Your task to perform on an android device: open a new tab in the chrome app Image 0: 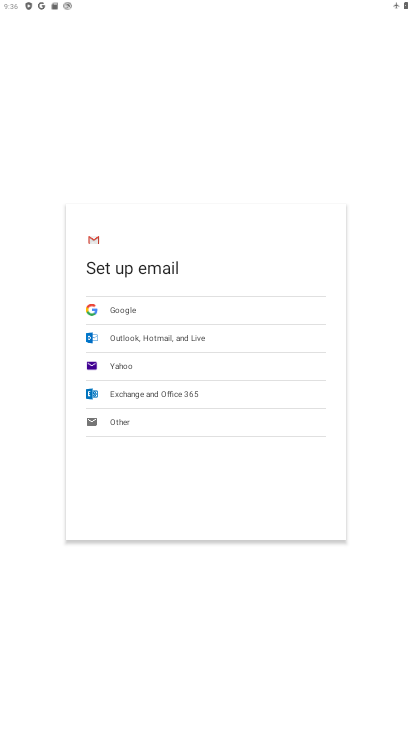
Step 0: press home button
Your task to perform on an android device: open a new tab in the chrome app Image 1: 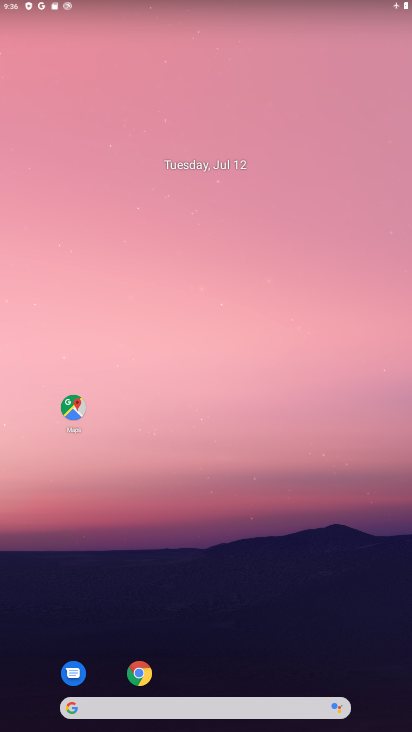
Step 1: click (143, 673)
Your task to perform on an android device: open a new tab in the chrome app Image 2: 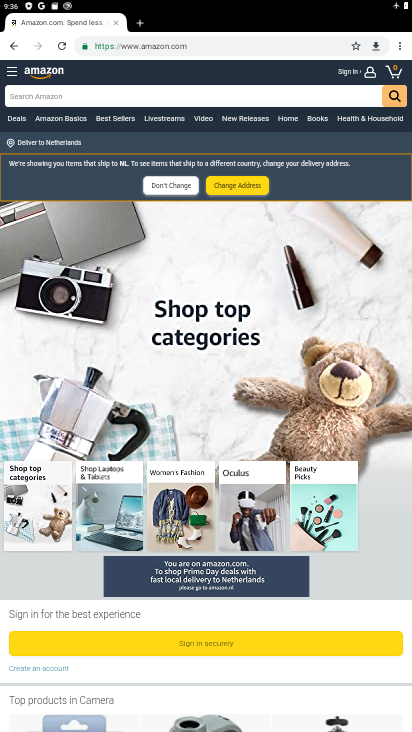
Step 2: click (400, 44)
Your task to perform on an android device: open a new tab in the chrome app Image 3: 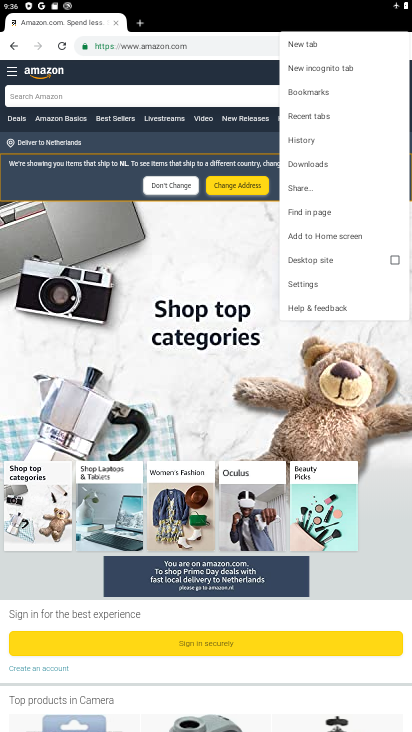
Step 3: click (333, 44)
Your task to perform on an android device: open a new tab in the chrome app Image 4: 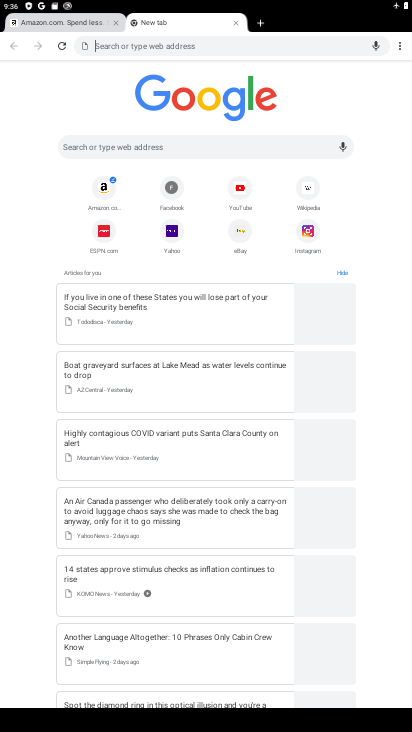
Step 4: task complete